Your task to perform on an android device: Open sound settings Image 0: 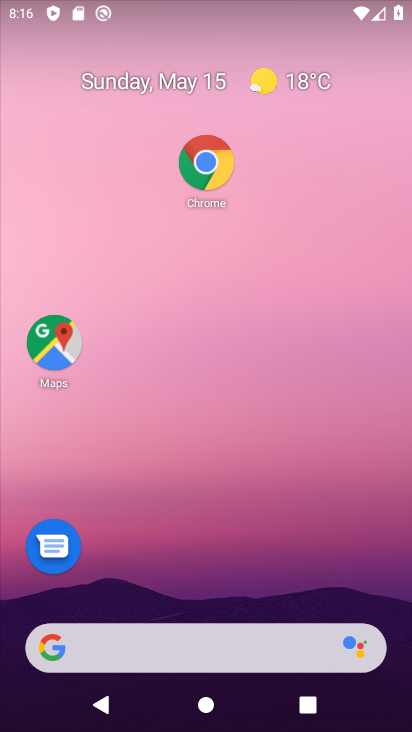
Step 0: drag from (308, 327) to (308, 189)
Your task to perform on an android device: Open sound settings Image 1: 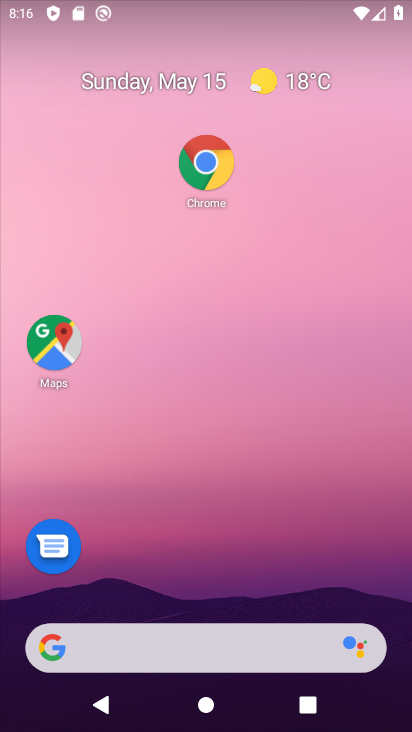
Step 1: drag from (277, 622) to (338, 113)
Your task to perform on an android device: Open sound settings Image 2: 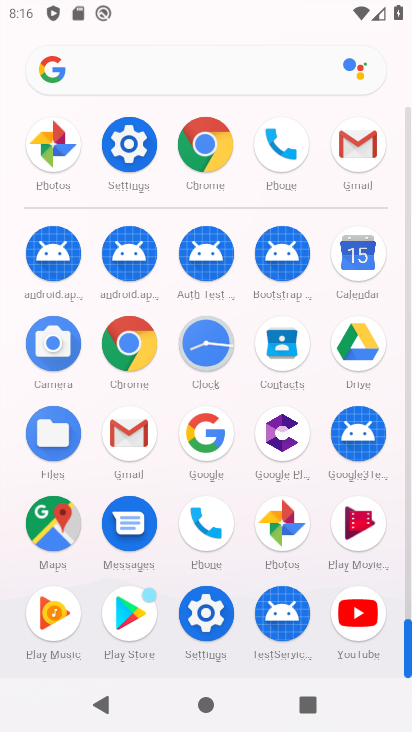
Step 2: click (131, 146)
Your task to perform on an android device: Open sound settings Image 3: 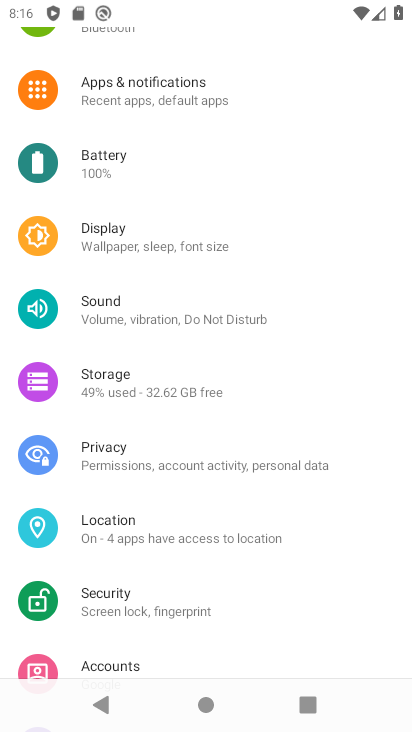
Step 3: drag from (184, 557) to (186, 461)
Your task to perform on an android device: Open sound settings Image 4: 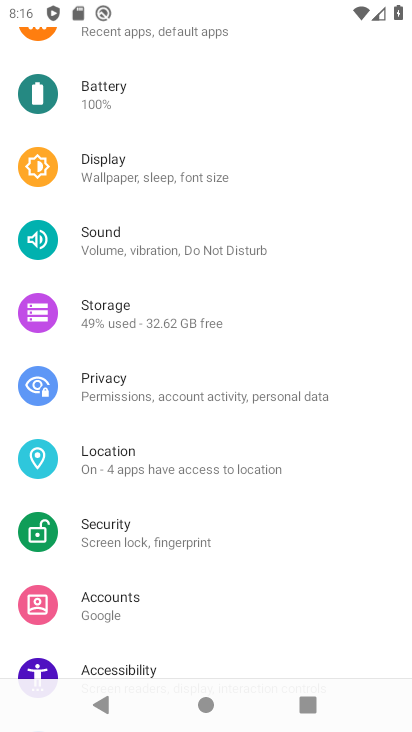
Step 4: click (202, 239)
Your task to perform on an android device: Open sound settings Image 5: 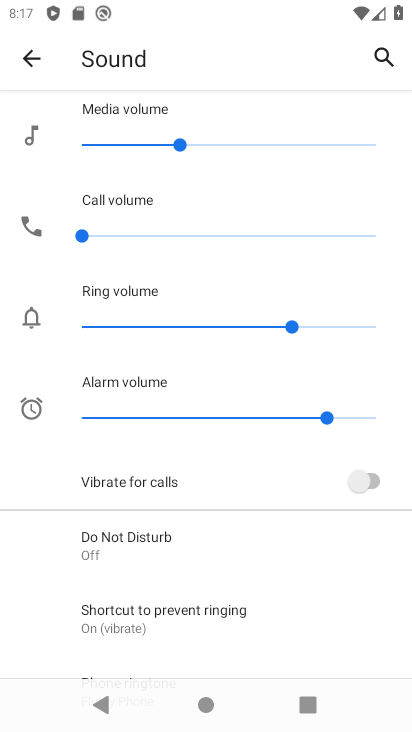
Step 5: task complete